Your task to perform on an android device: Open Maps and search for coffee Image 0: 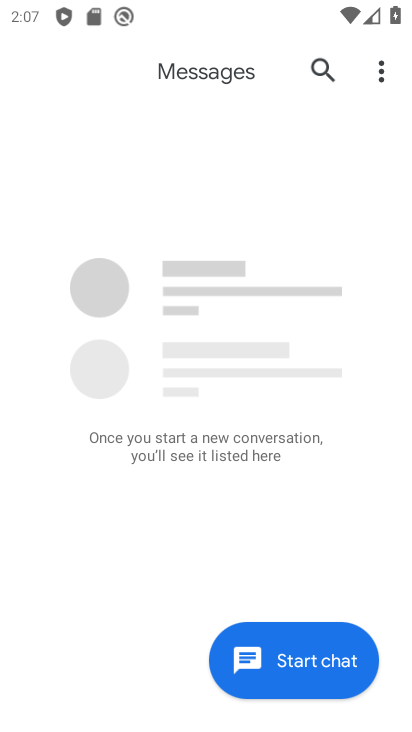
Step 0: press home button
Your task to perform on an android device: Open Maps and search for coffee Image 1: 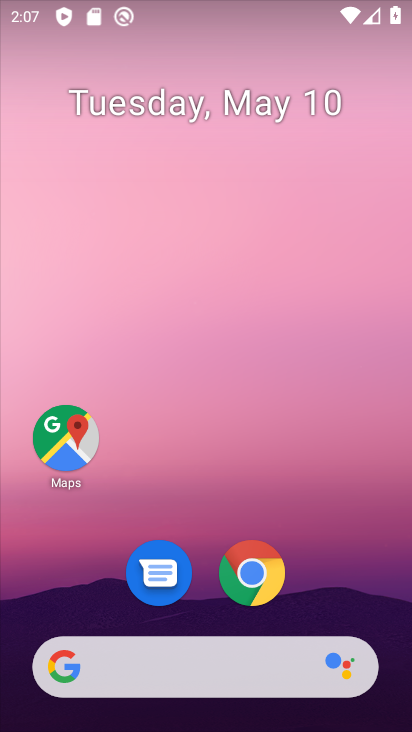
Step 1: click (56, 447)
Your task to perform on an android device: Open Maps and search for coffee Image 2: 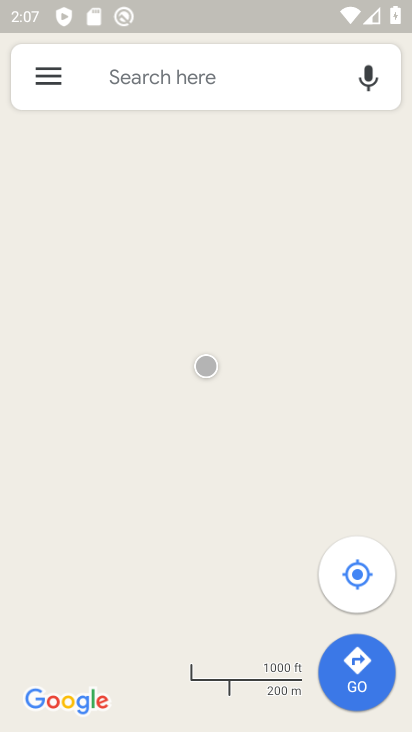
Step 2: click (251, 73)
Your task to perform on an android device: Open Maps and search for coffee Image 3: 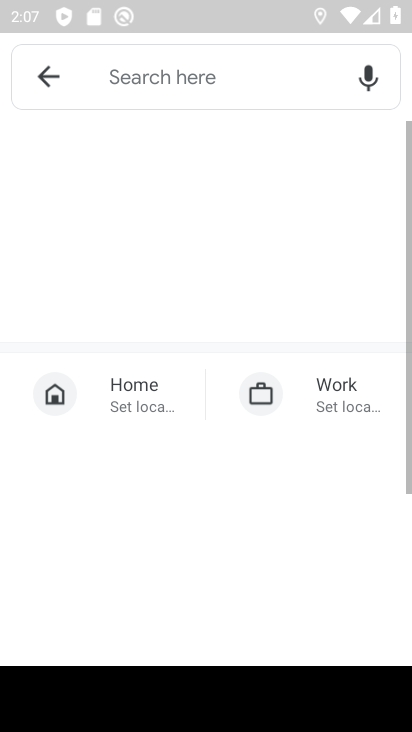
Step 3: type "coffee"
Your task to perform on an android device: Open Maps and search for coffee Image 4: 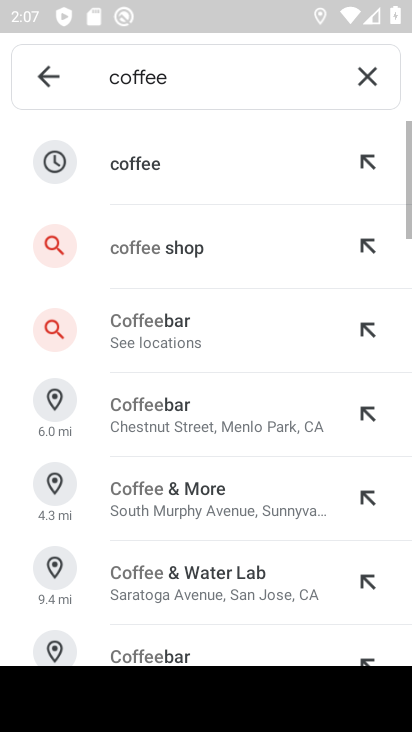
Step 4: click (225, 145)
Your task to perform on an android device: Open Maps and search for coffee Image 5: 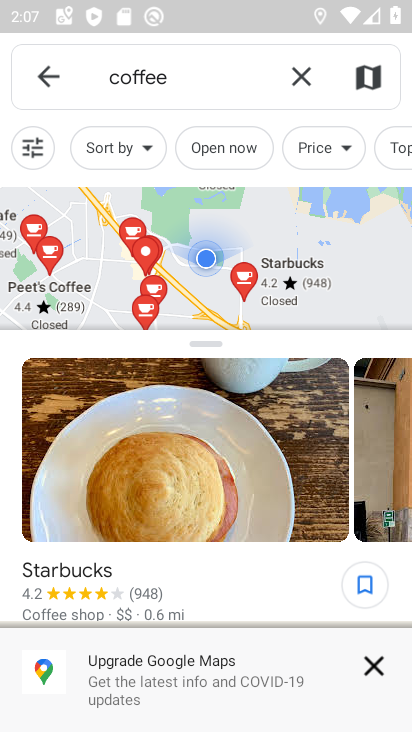
Step 5: task complete